Your task to perform on an android device: Open the phone app and click the voicemail tab. Image 0: 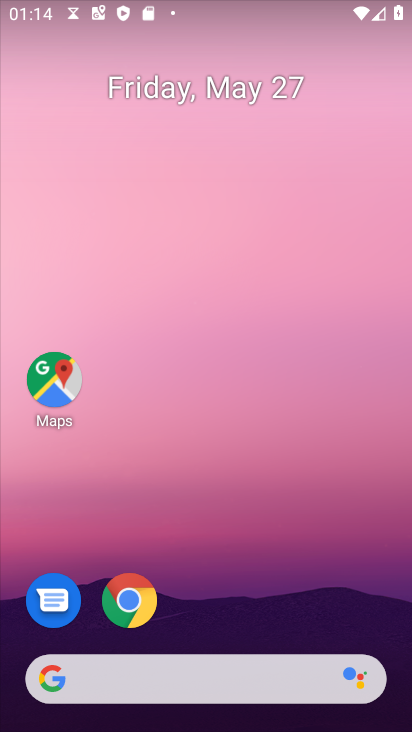
Step 0: drag from (218, 545) to (216, 294)
Your task to perform on an android device: Open the phone app and click the voicemail tab. Image 1: 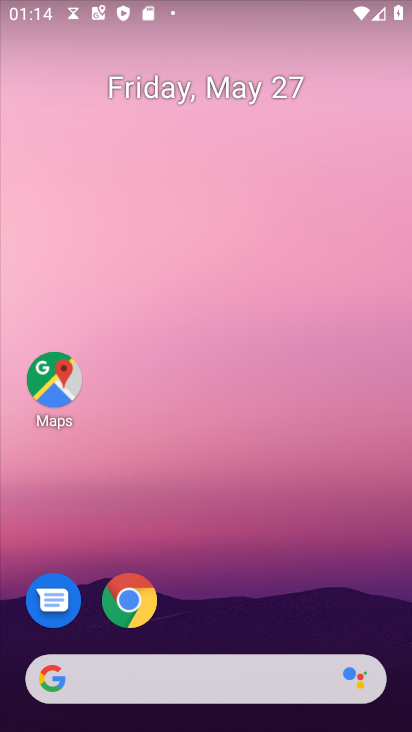
Step 1: drag from (238, 497) to (238, 60)
Your task to perform on an android device: Open the phone app and click the voicemail tab. Image 2: 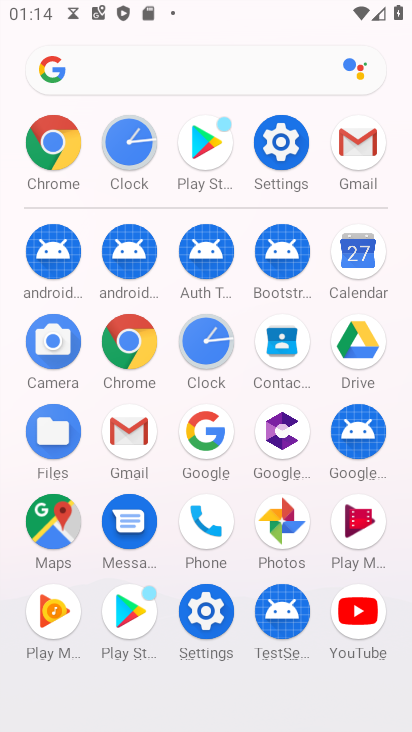
Step 2: click (211, 517)
Your task to perform on an android device: Open the phone app and click the voicemail tab. Image 3: 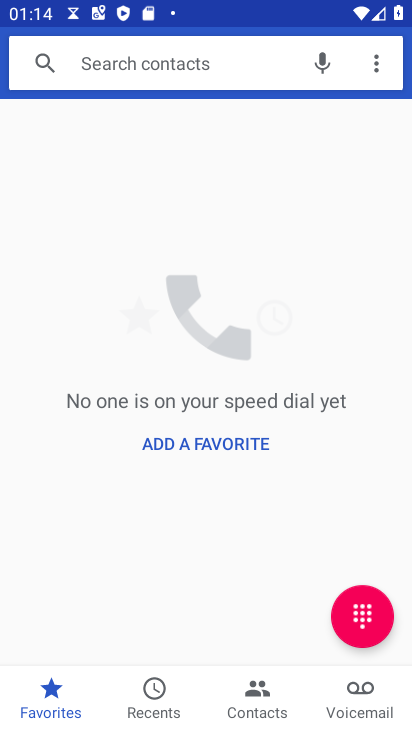
Step 3: click (348, 699)
Your task to perform on an android device: Open the phone app and click the voicemail tab. Image 4: 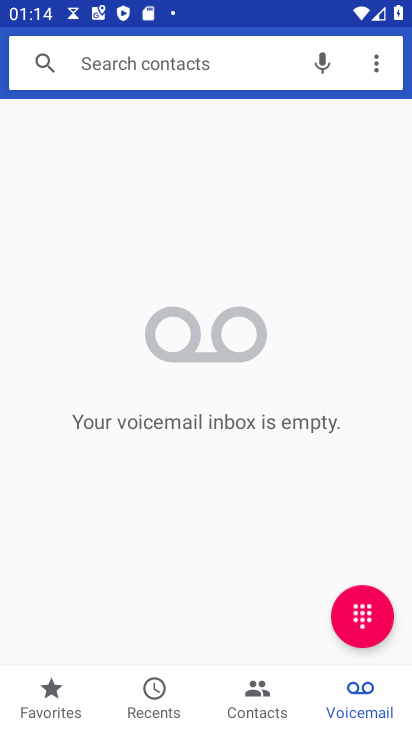
Step 4: task complete